Your task to perform on an android device: Open Chrome and go to the settings page Image 0: 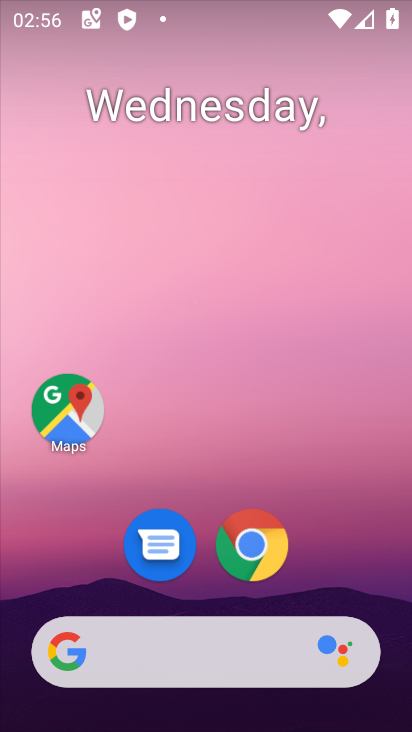
Step 0: press home button
Your task to perform on an android device: Open Chrome and go to the settings page Image 1: 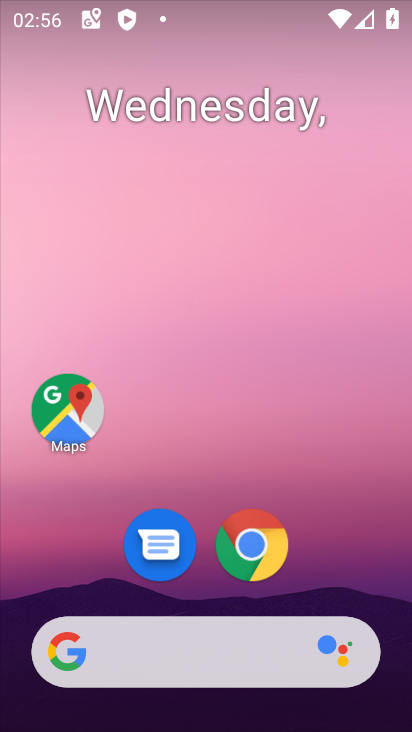
Step 1: click (236, 552)
Your task to perform on an android device: Open Chrome and go to the settings page Image 2: 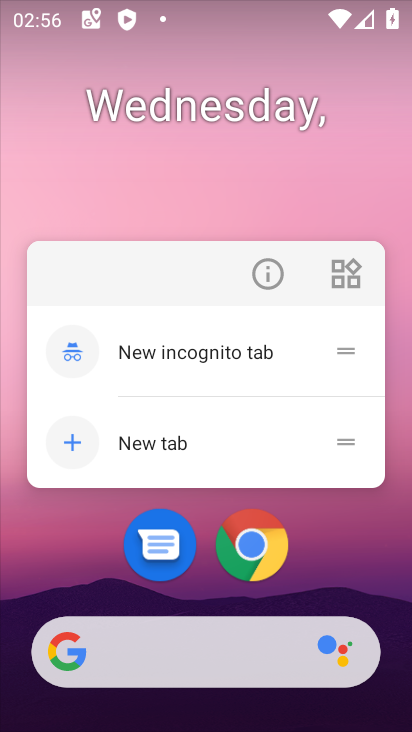
Step 2: click (249, 549)
Your task to perform on an android device: Open Chrome and go to the settings page Image 3: 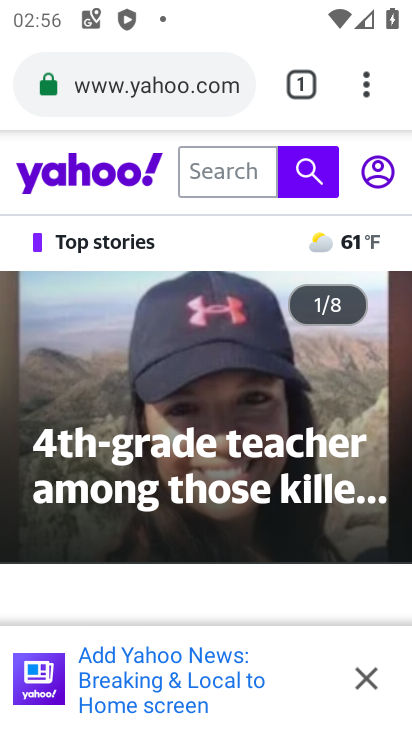
Step 3: task complete